Your task to perform on an android device: Is it going to rain tomorrow? Image 0: 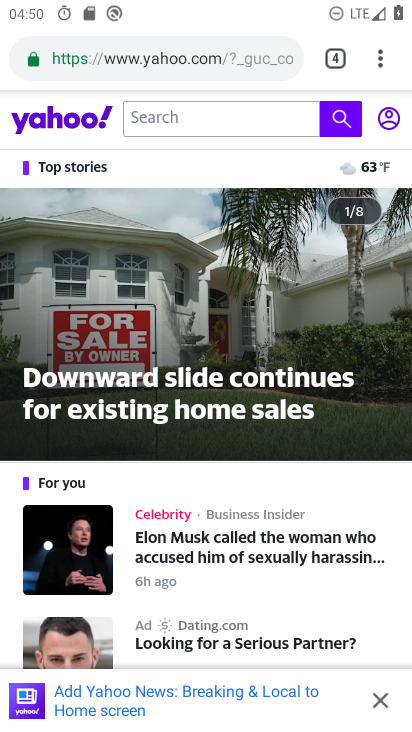
Step 0: press back button
Your task to perform on an android device: Is it going to rain tomorrow? Image 1: 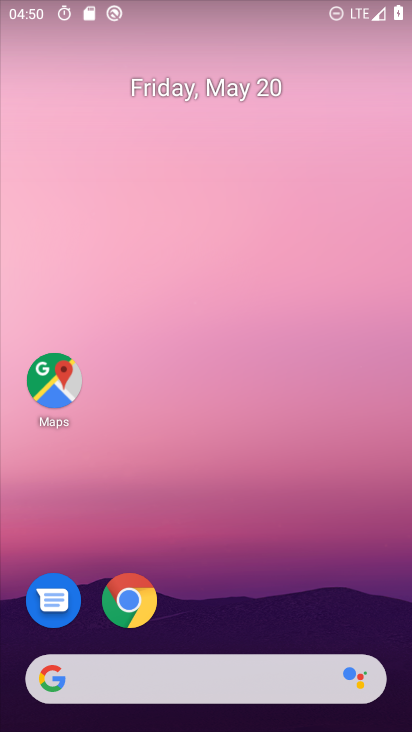
Step 1: click (154, 686)
Your task to perform on an android device: Is it going to rain tomorrow? Image 2: 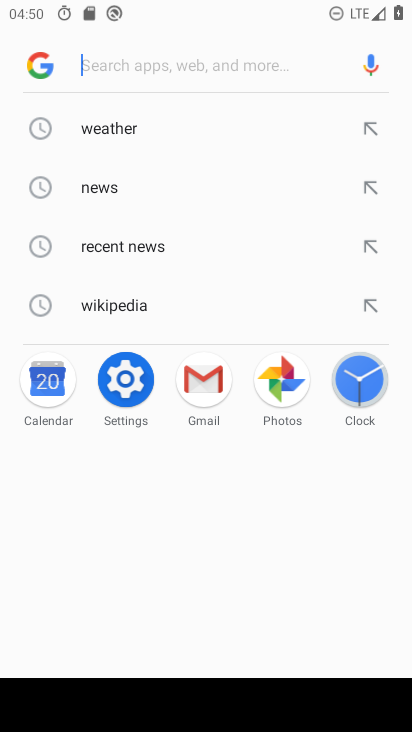
Step 2: click (143, 128)
Your task to perform on an android device: Is it going to rain tomorrow? Image 3: 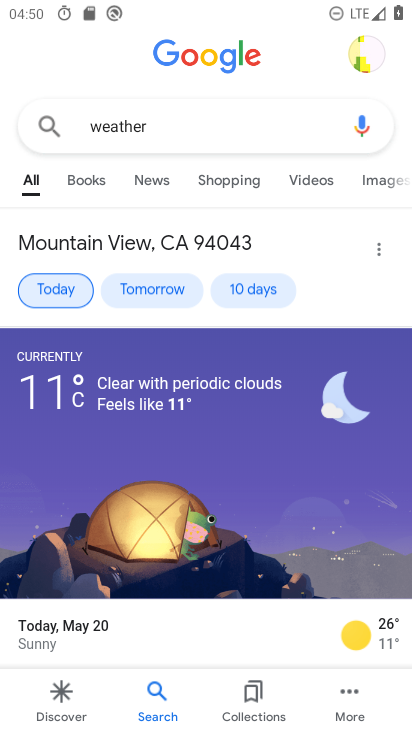
Step 3: click (143, 290)
Your task to perform on an android device: Is it going to rain tomorrow? Image 4: 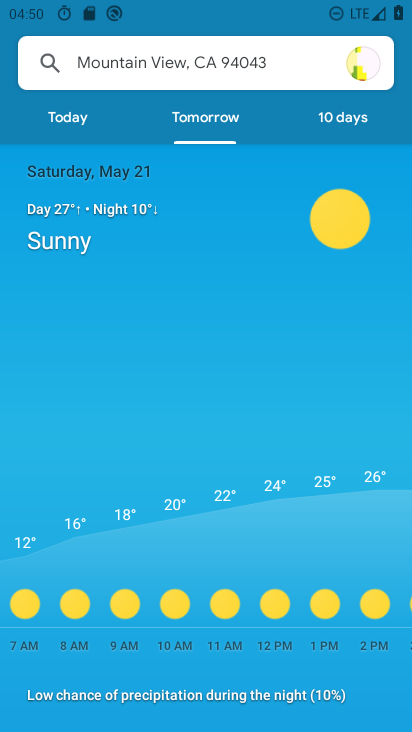
Step 4: task complete